Your task to perform on an android device: turn off notifications settings in the gmail app Image 0: 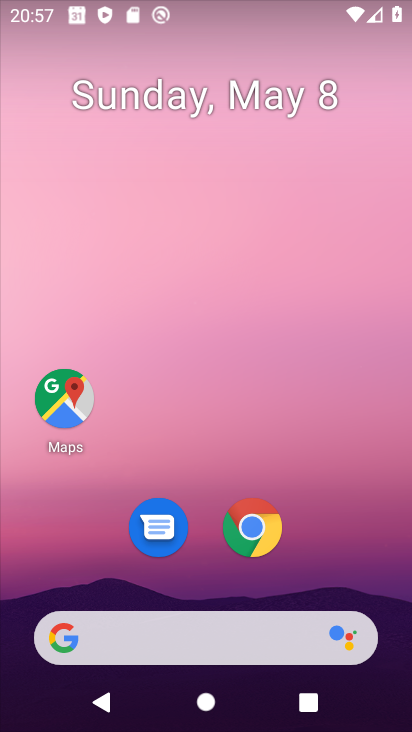
Step 0: drag from (207, 565) to (223, 105)
Your task to perform on an android device: turn off notifications settings in the gmail app Image 1: 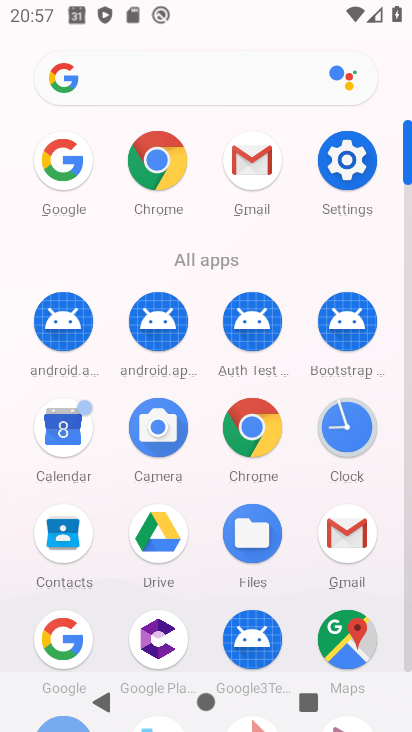
Step 1: click (252, 159)
Your task to perform on an android device: turn off notifications settings in the gmail app Image 2: 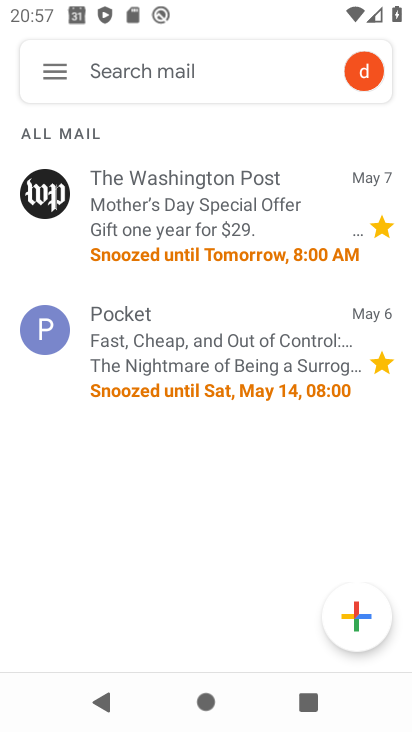
Step 2: click (63, 74)
Your task to perform on an android device: turn off notifications settings in the gmail app Image 3: 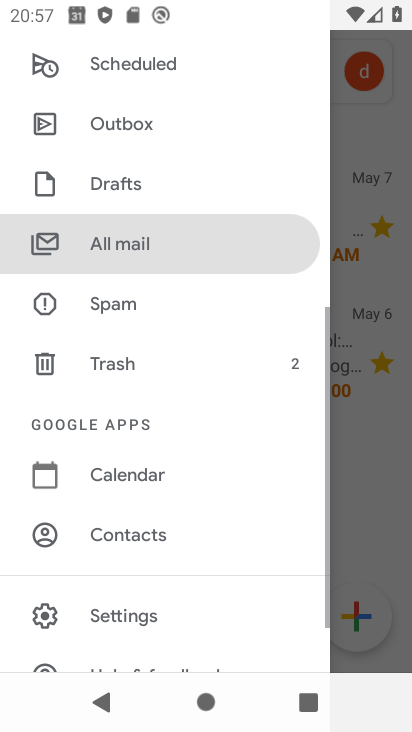
Step 3: drag from (160, 543) to (207, 312)
Your task to perform on an android device: turn off notifications settings in the gmail app Image 4: 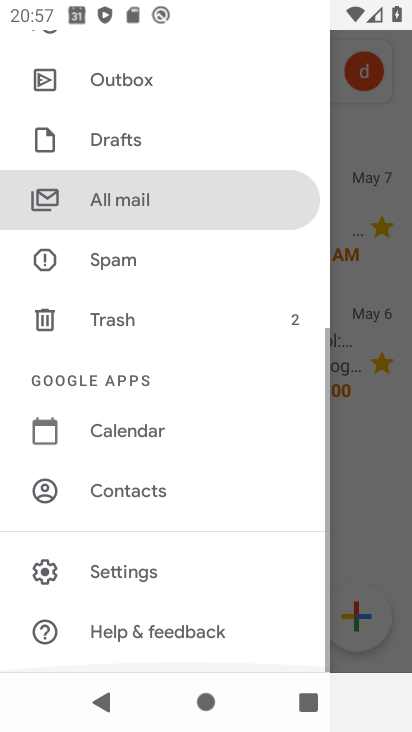
Step 4: click (153, 589)
Your task to perform on an android device: turn off notifications settings in the gmail app Image 5: 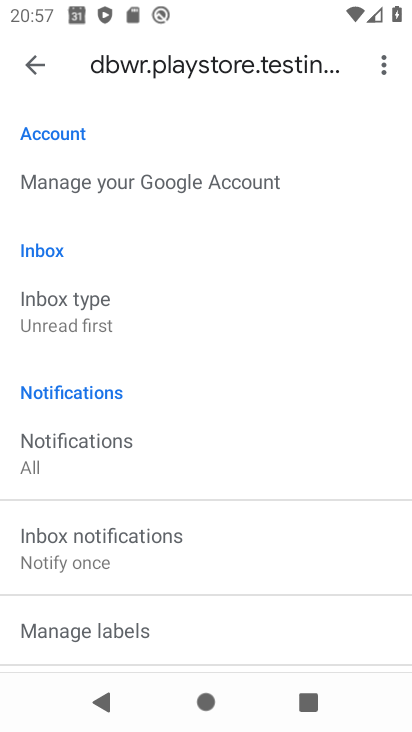
Step 5: click (97, 462)
Your task to perform on an android device: turn off notifications settings in the gmail app Image 6: 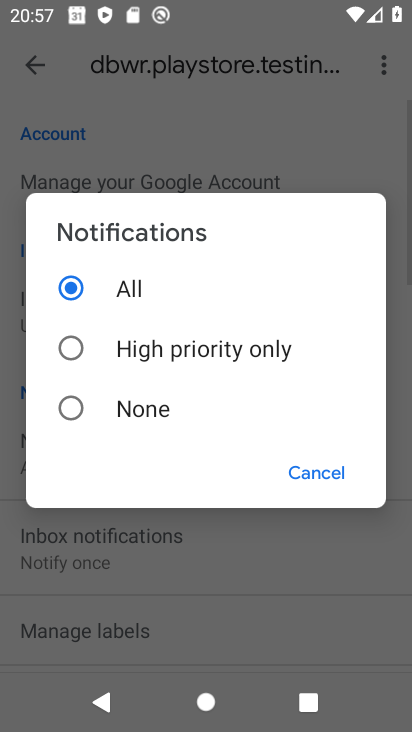
Step 6: click (57, 416)
Your task to perform on an android device: turn off notifications settings in the gmail app Image 7: 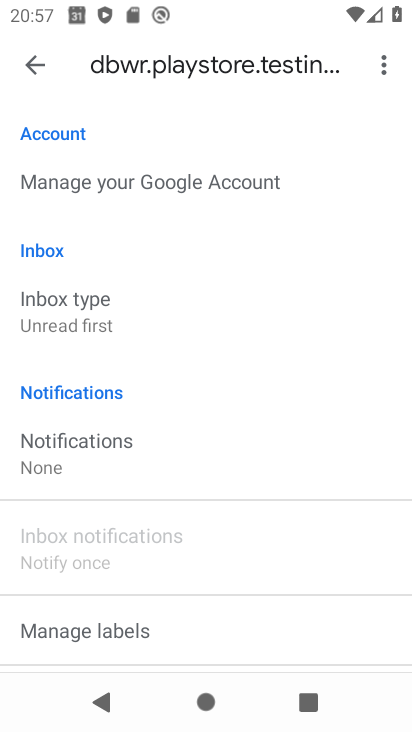
Step 7: task complete